Your task to perform on an android device: Open the calendar app, open the side menu, and click the "Day" option Image 0: 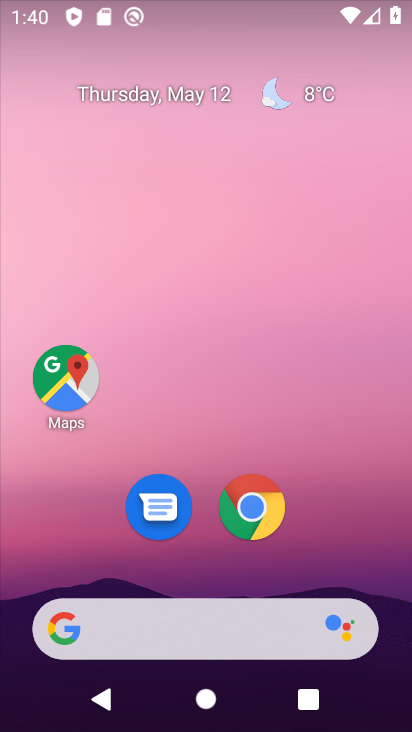
Step 0: drag from (146, 599) to (246, 27)
Your task to perform on an android device: Open the calendar app, open the side menu, and click the "Day" option Image 1: 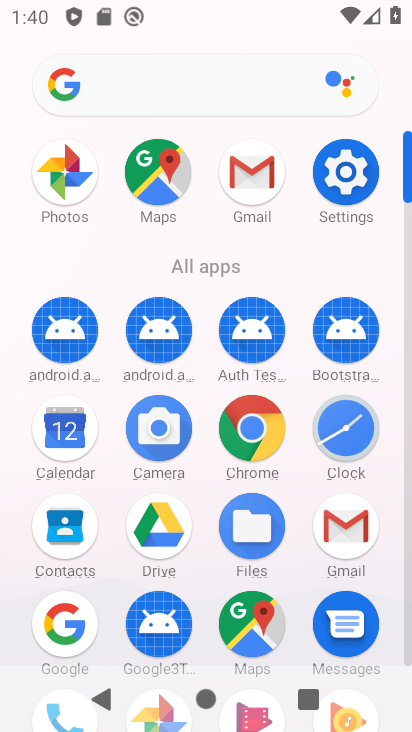
Step 1: click (72, 427)
Your task to perform on an android device: Open the calendar app, open the side menu, and click the "Day" option Image 2: 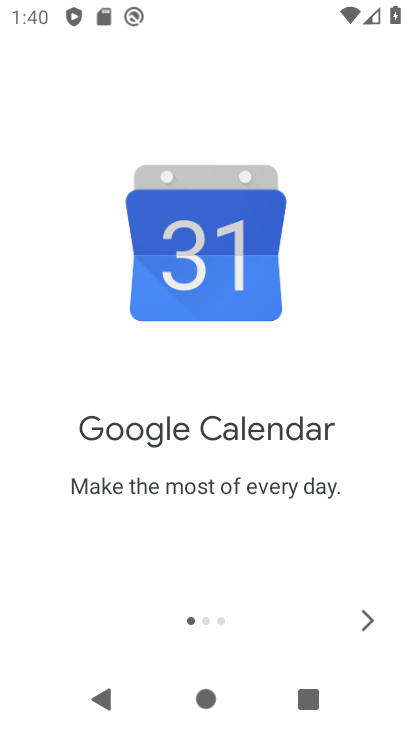
Step 2: click (353, 621)
Your task to perform on an android device: Open the calendar app, open the side menu, and click the "Day" option Image 3: 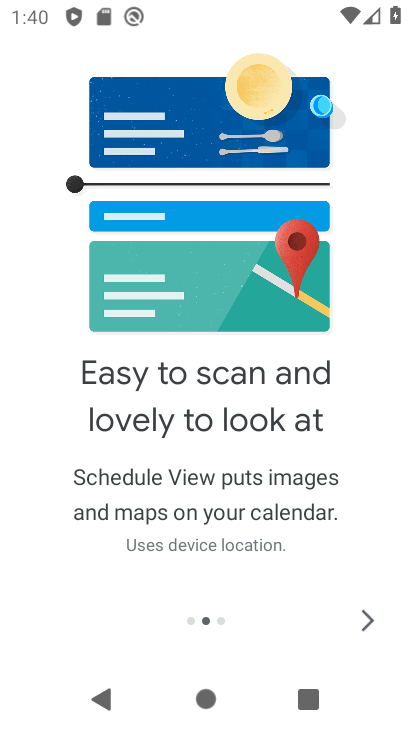
Step 3: click (352, 619)
Your task to perform on an android device: Open the calendar app, open the side menu, and click the "Day" option Image 4: 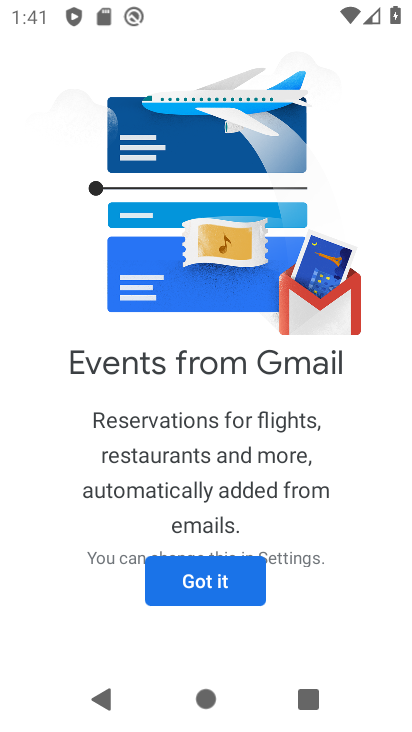
Step 4: click (263, 587)
Your task to perform on an android device: Open the calendar app, open the side menu, and click the "Day" option Image 5: 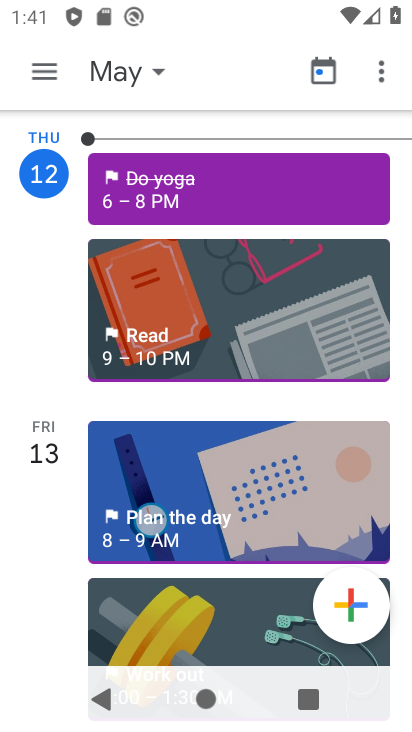
Step 5: click (49, 59)
Your task to perform on an android device: Open the calendar app, open the side menu, and click the "Day" option Image 6: 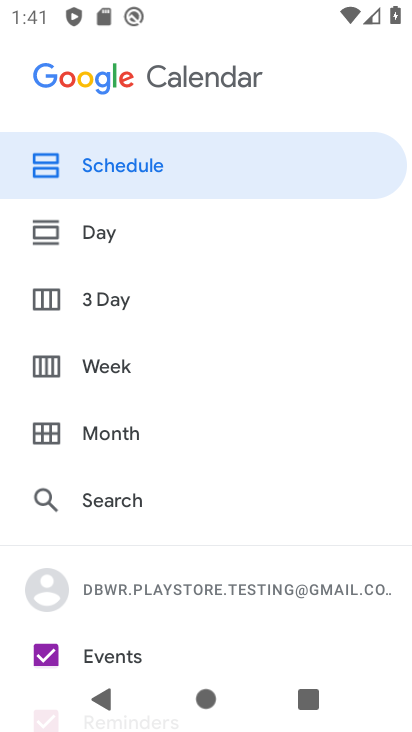
Step 6: click (102, 244)
Your task to perform on an android device: Open the calendar app, open the side menu, and click the "Day" option Image 7: 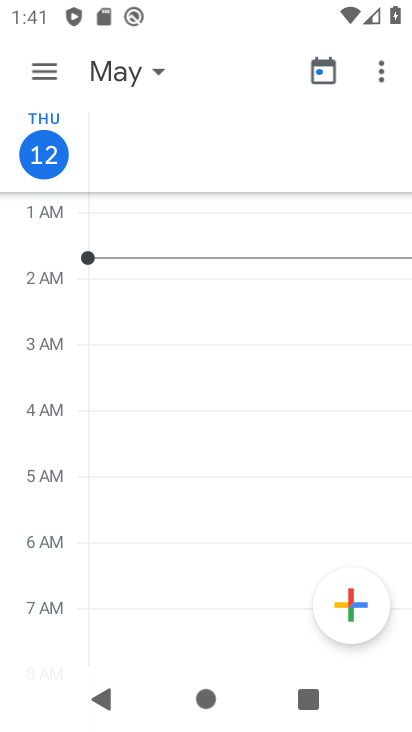
Step 7: task complete